Your task to perform on an android device: Go to CNN.com Image 0: 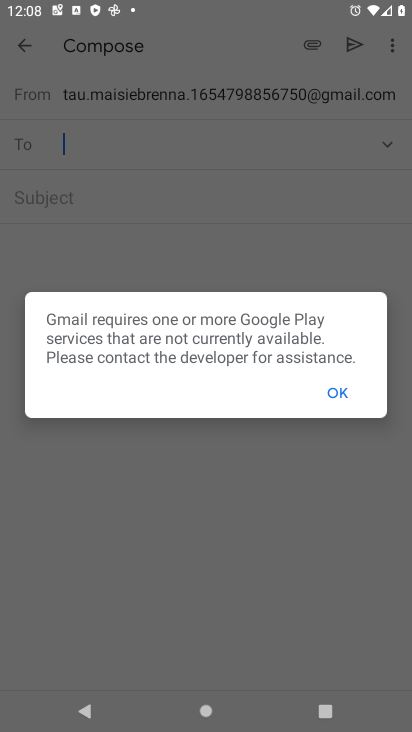
Step 0: drag from (209, 627) to (405, 157)
Your task to perform on an android device: Go to CNN.com Image 1: 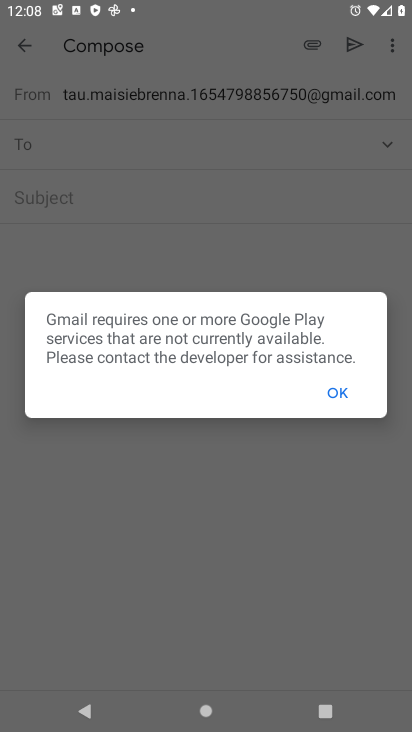
Step 1: press home button
Your task to perform on an android device: Go to CNN.com Image 2: 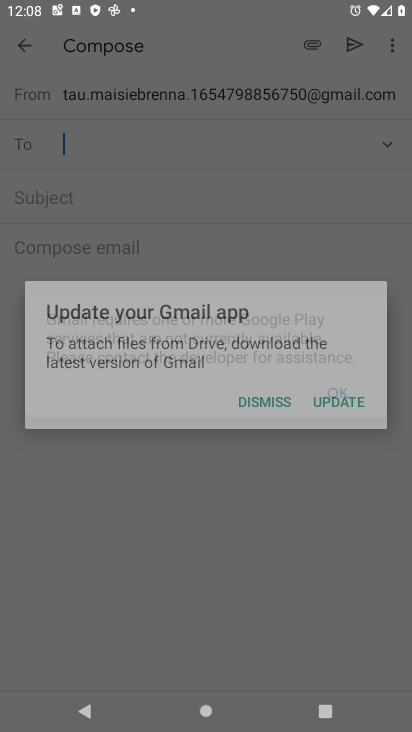
Step 2: drag from (405, 157) to (405, 526)
Your task to perform on an android device: Go to CNN.com Image 3: 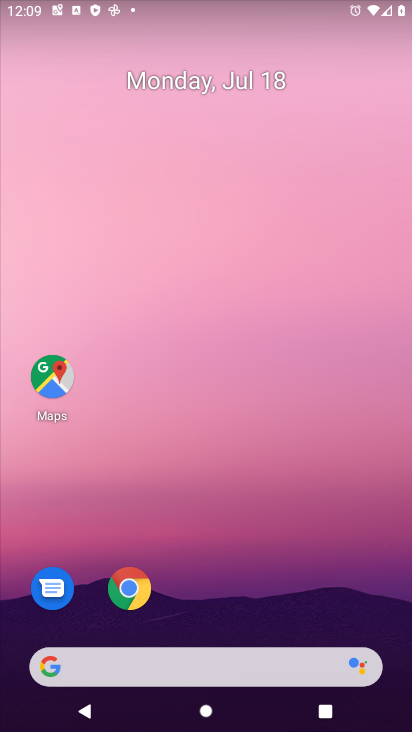
Step 3: drag from (220, 657) to (211, 259)
Your task to perform on an android device: Go to CNN.com Image 4: 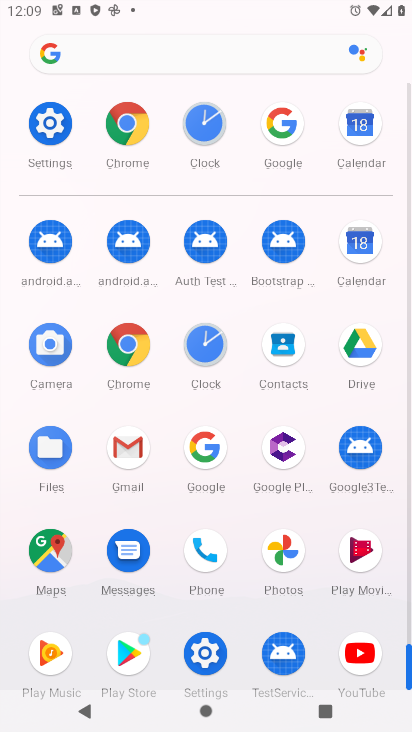
Step 4: click (128, 132)
Your task to perform on an android device: Go to CNN.com Image 5: 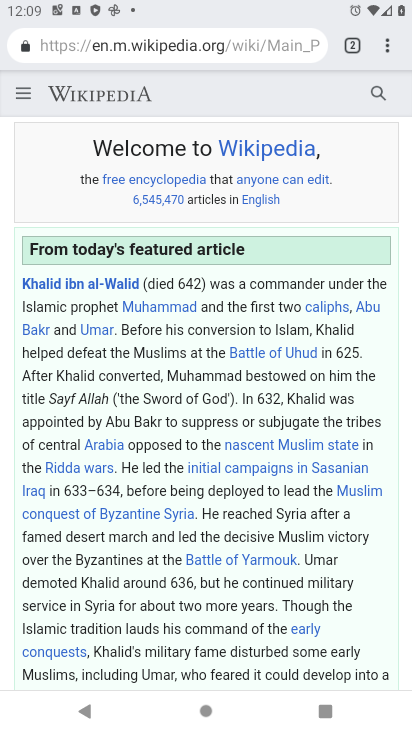
Step 5: click (292, 50)
Your task to perform on an android device: Go to CNN.com Image 6: 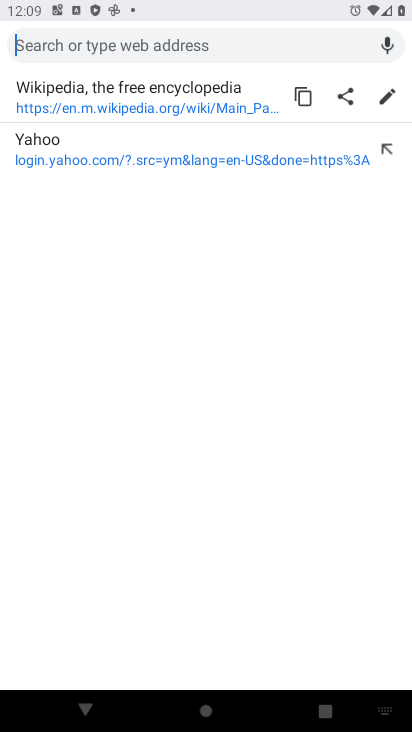
Step 6: type "cnn"
Your task to perform on an android device: Go to CNN.com Image 7: 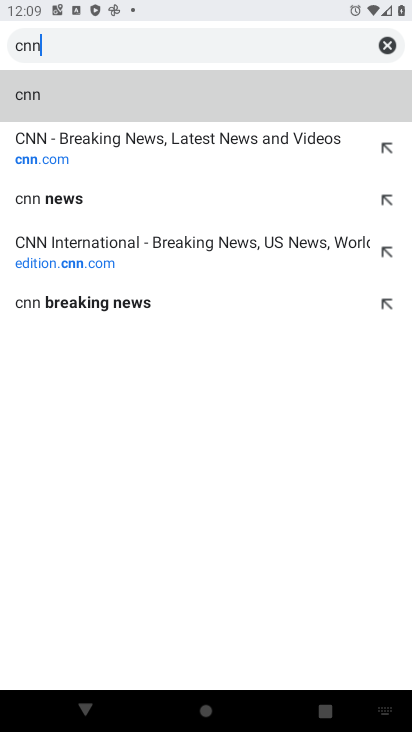
Step 7: click (178, 149)
Your task to perform on an android device: Go to CNN.com Image 8: 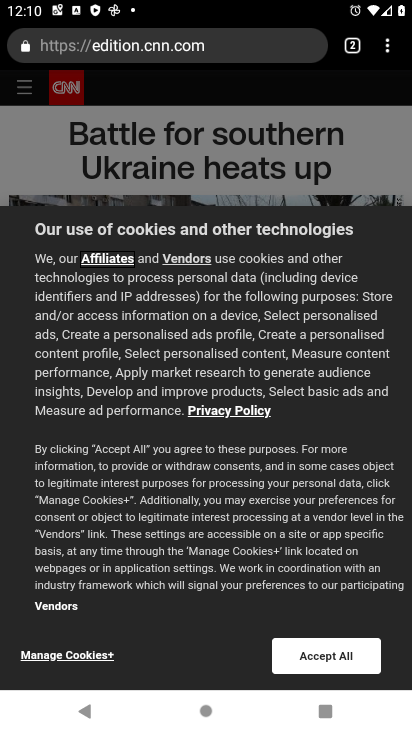
Step 8: task complete